Your task to perform on an android device: turn off priority inbox in the gmail app Image 0: 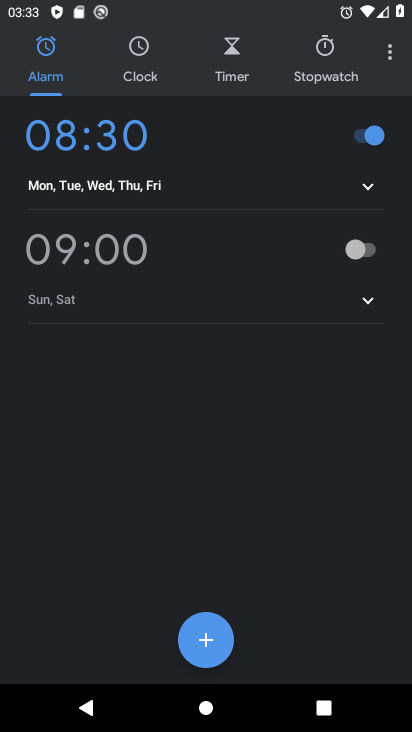
Step 0: press home button
Your task to perform on an android device: turn off priority inbox in the gmail app Image 1: 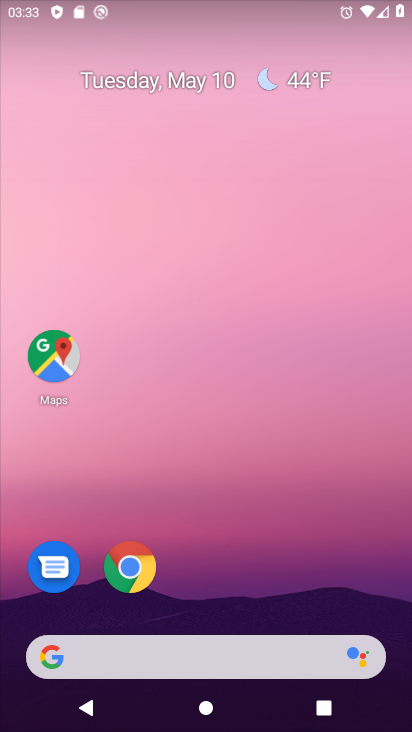
Step 1: drag from (213, 586) to (199, 87)
Your task to perform on an android device: turn off priority inbox in the gmail app Image 2: 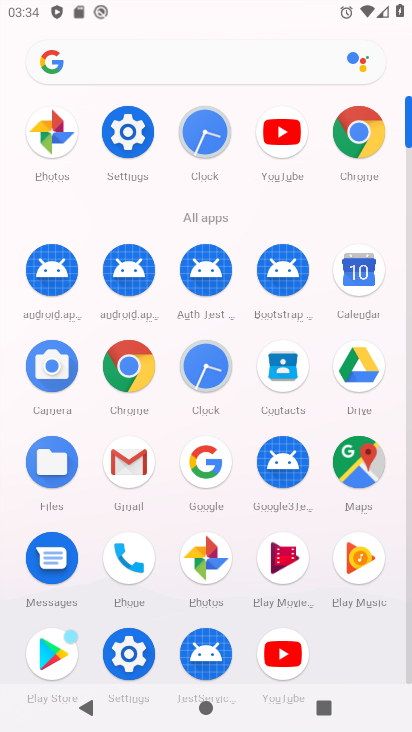
Step 2: click (116, 462)
Your task to perform on an android device: turn off priority inbox in the gmail app Image 3: 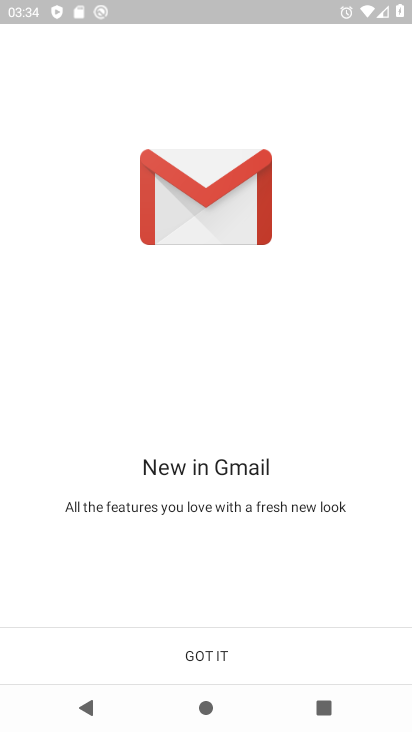
Step 3: click (215, 650)
Your task to perform on an android device: turn off priority inbox in the gmail app Image 4: 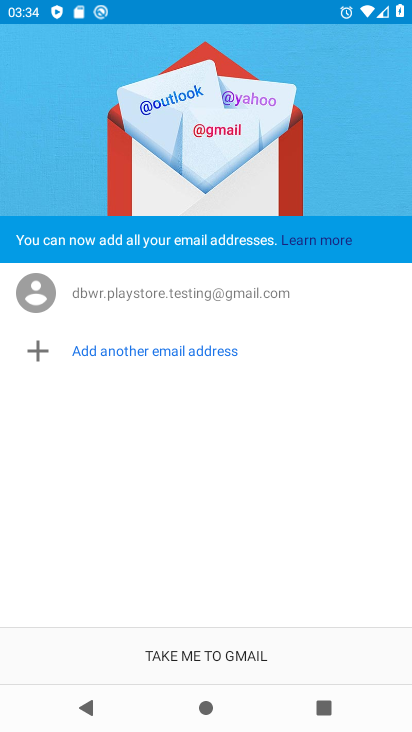
Step 4: click (217, 656)
Your task to perform on an android device: turn off priority inbox in the gmail app Image 5: 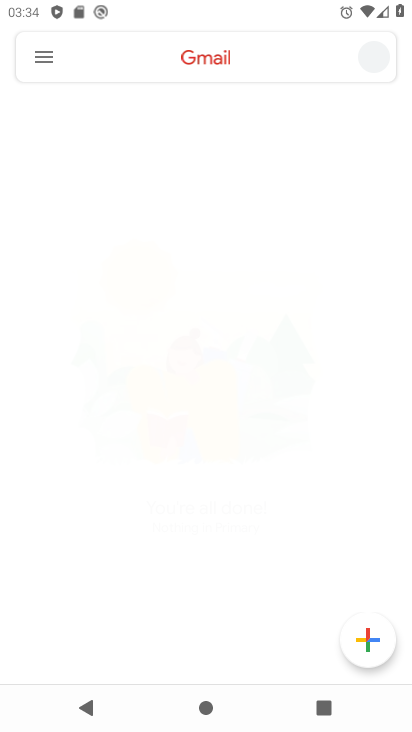
Step 5: click (46, 56)
Your task to perform on an android device: turn off priority inbox in the gmail app Image 6: 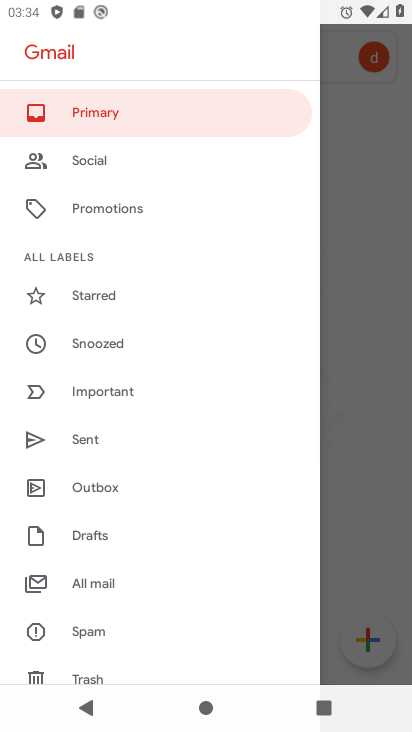
Step 6: drag from (114, 638) to (188, 5)
Your task to perform on an android device: turn off priority inbox in the gmail app Image 7: 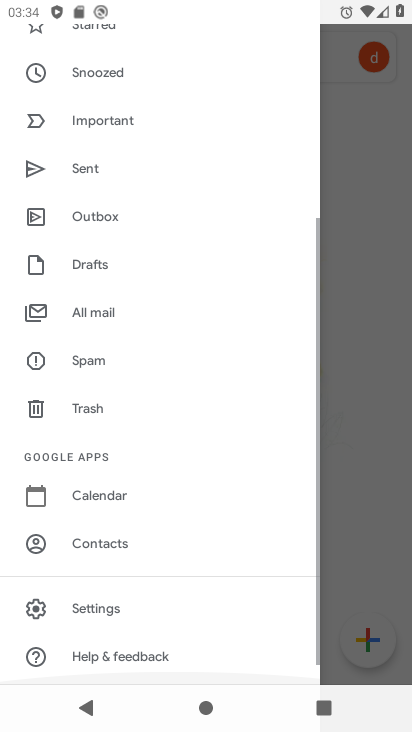
Step 7: click (75, 613)
Your task to perform on an android device: turn off priority inbox in the gmail app Image 8: 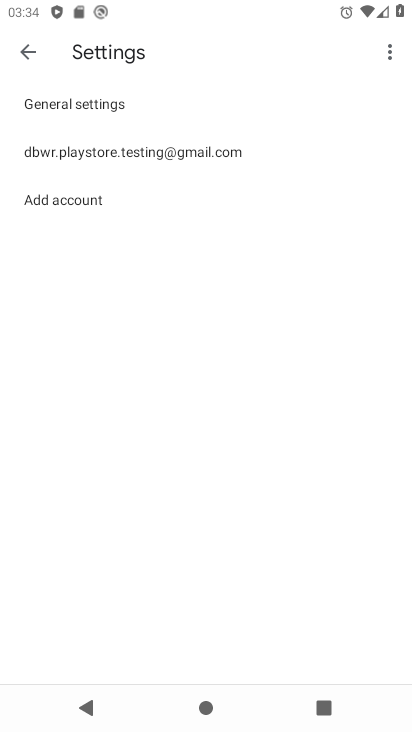
Step 8: click (54, 140)
Your task to perform on an android device: turn off priority inbox in the gmail app Image 9: 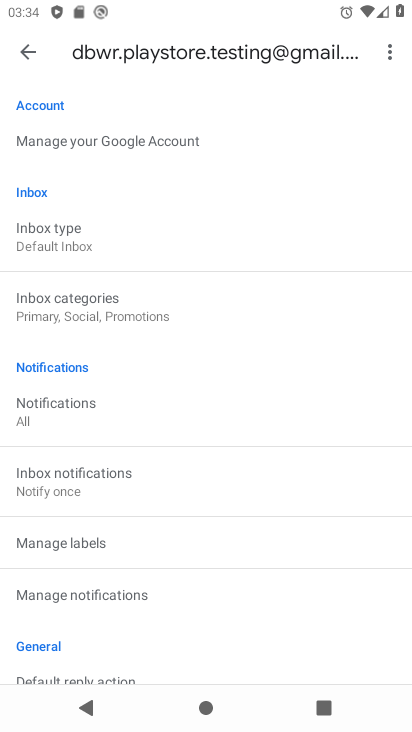
Step 9: click (47, 247)
Your task to perform on an android device: turn off priority inbox in the gmail app Image 10: 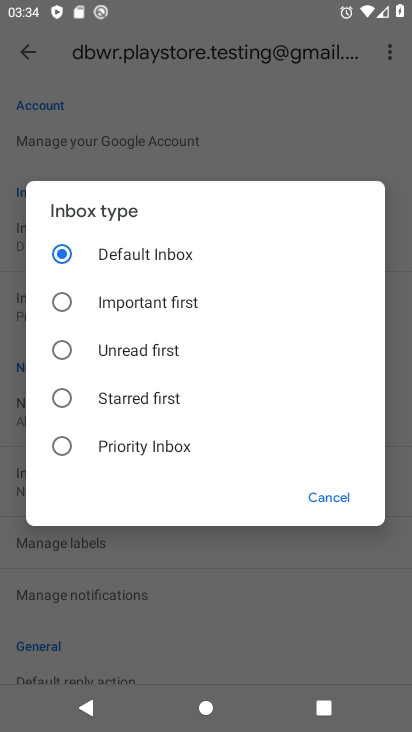
Step 10: task complete